Your task to perform on an android device: turn off priority inbox in the gmail app Image 0: 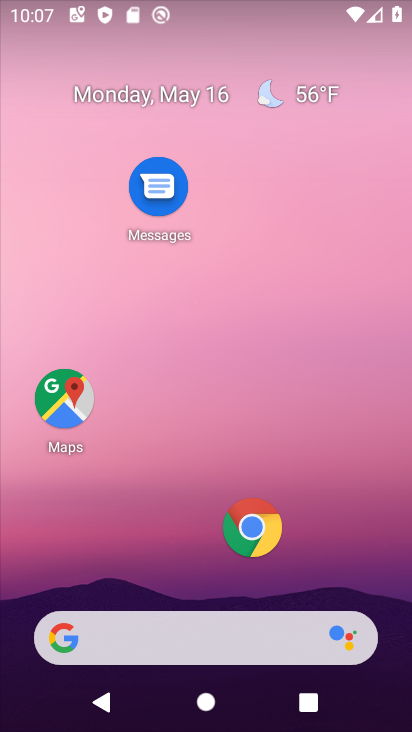
Step 0: drag from (173, 560) to (183, 66)
Your task to perform on an android device: turn off priority inbox in the gmail app Image 1: 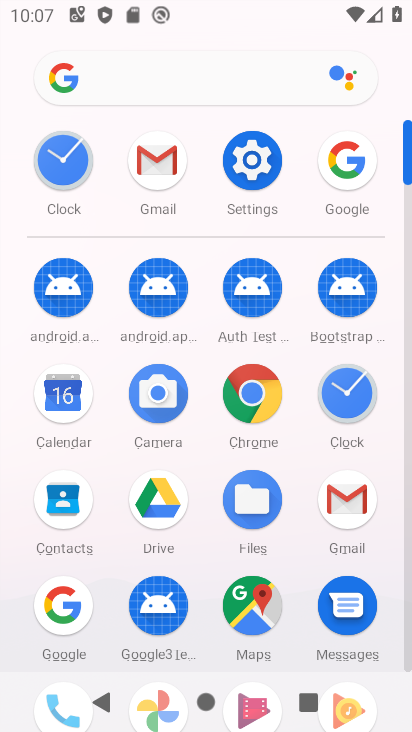
Step 1: click (146, 162)
Your task to perform on an android device: turn off priority inbox in the gmail app Image 2: 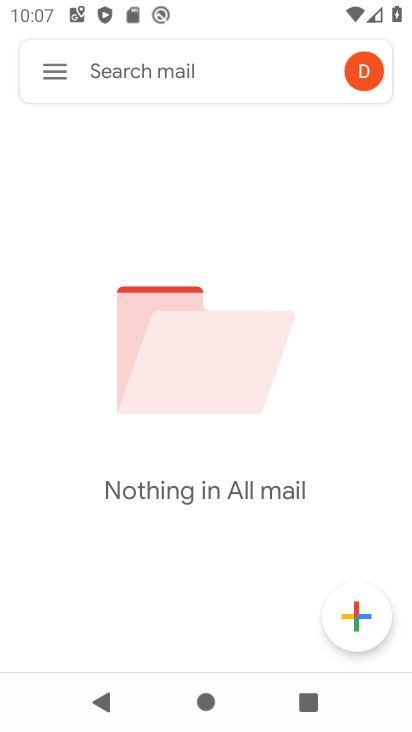
Step 2: click (41, 71)
Your task to perform on an android device: turn off priority inbox in the gmail app Image 3: 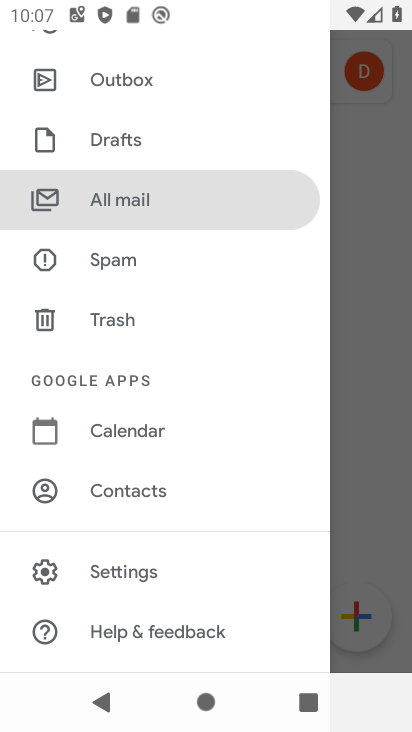
Step 3: drag from (131, 252) to (172, 205)
Your task to perform on an android device: turn off priority inbox in the gmail app Image 4: 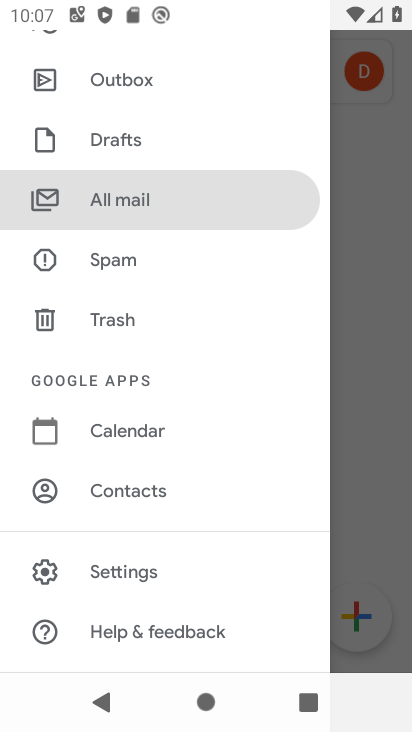
Step 4: click (147, 573)
Your task to perform on an android device: turn off priority inbox in the gmail app Image 5: 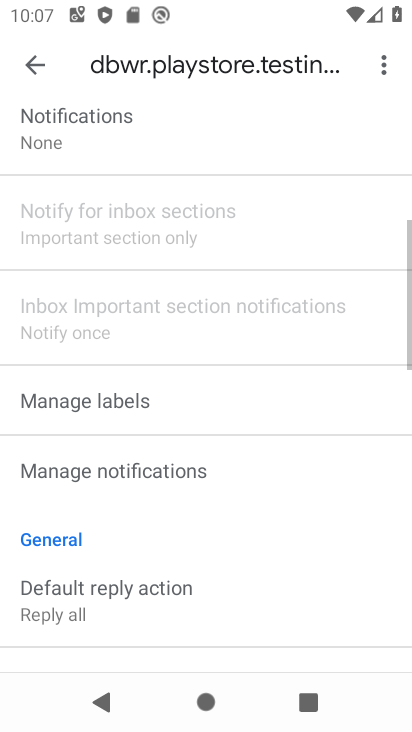
Step 5: drag from (110, 241) to (292, 622)
Your task to perform on an android device: turn off priority inbox in the gmail app Image 6: 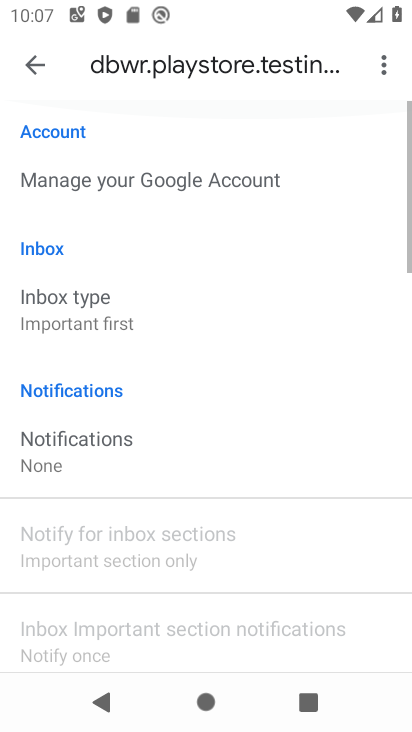
Step 6: drag from (170, 514) to (137, 622)
Your task to perform on an android device: turn off priority inbox in the gmail app Image 7: 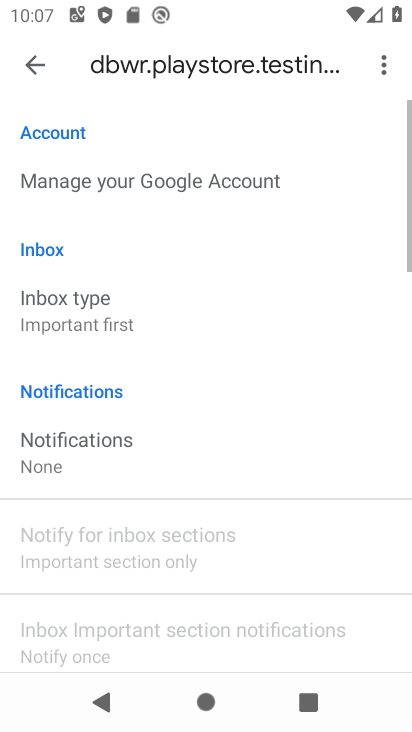
Step 7: click (91, 320)
Your task to perform on an android device: turn off priority inbox in the gmail app Image 8: 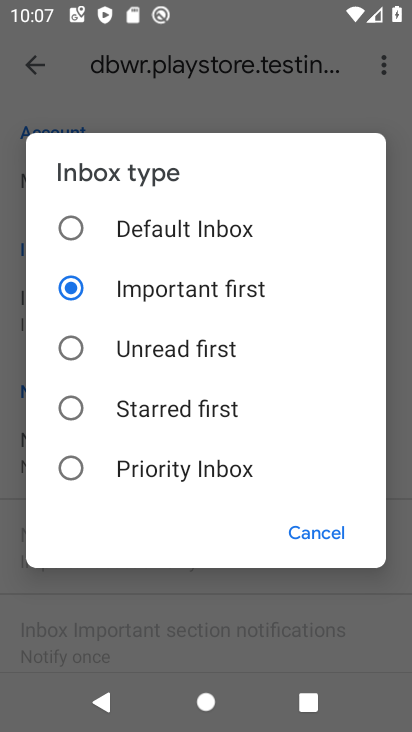
Step 8: click (110, 231)
Your task to perform on an android device: turn off priority inbox in the gmail app Image 9: 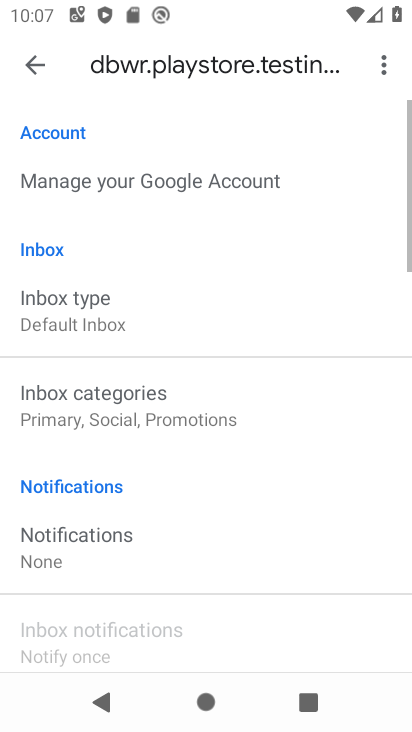
Step 9: task complete